Your task to perform on an android device: Is it going to rain today? Image 0: 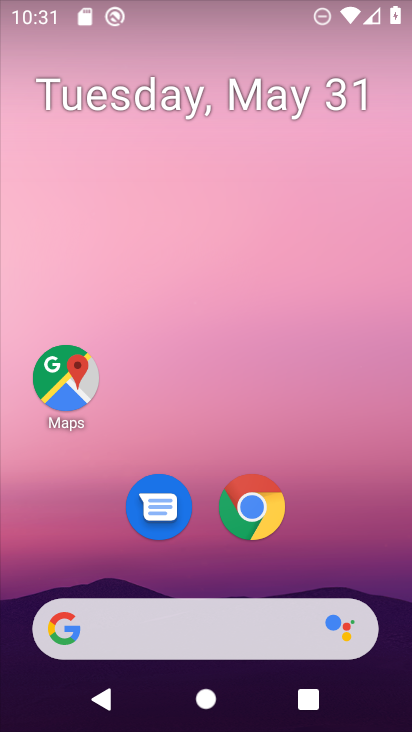
Step 0: drag from (0, 268) to (407, 239)
Your task to perform on an android device: Is it going to rain today? Image 1: 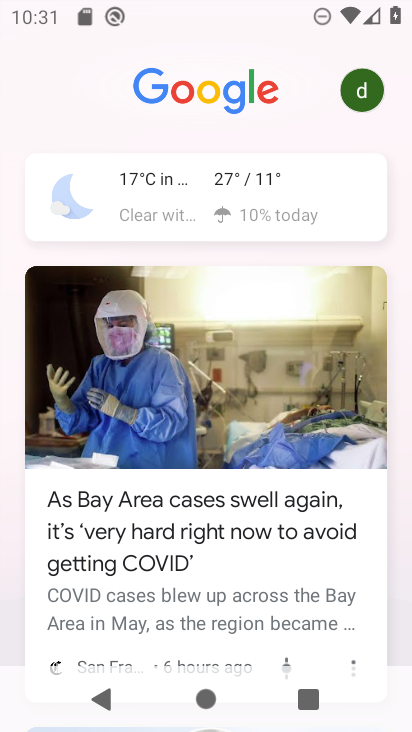
Step 1: click (269, 205)
Your task to perform on an android device: Is it going to rain today? Image 2: 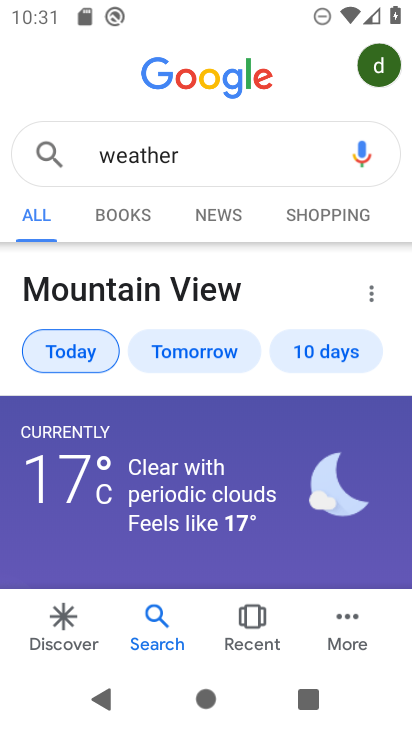
Step 2: task complete